Your task to perform on an android device: Show me recent news Image 0: 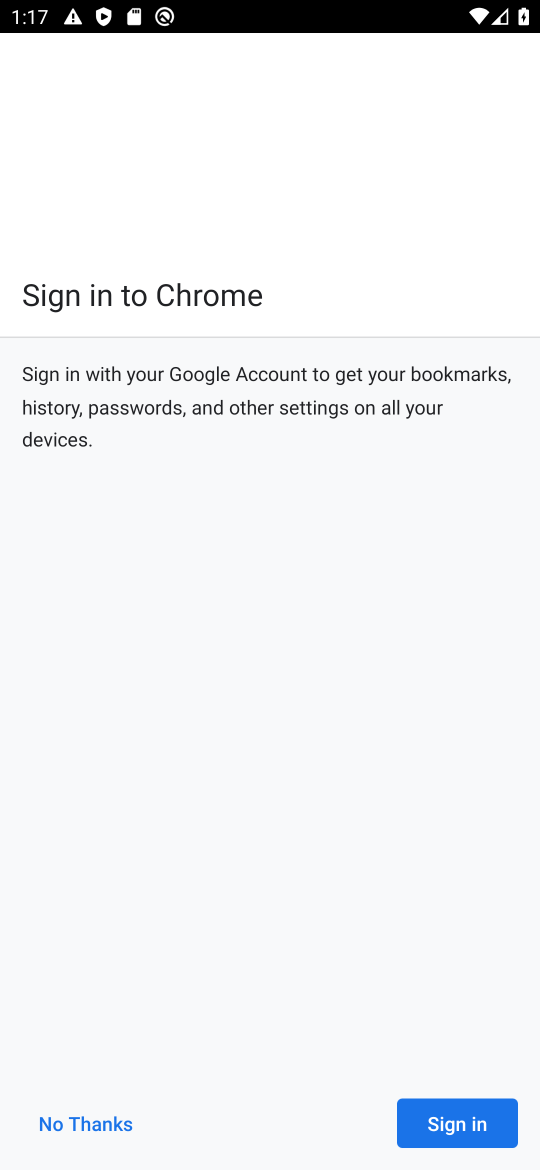
Step 0: press home button
Your task to perform on an android device: Show me recent news Image 1: 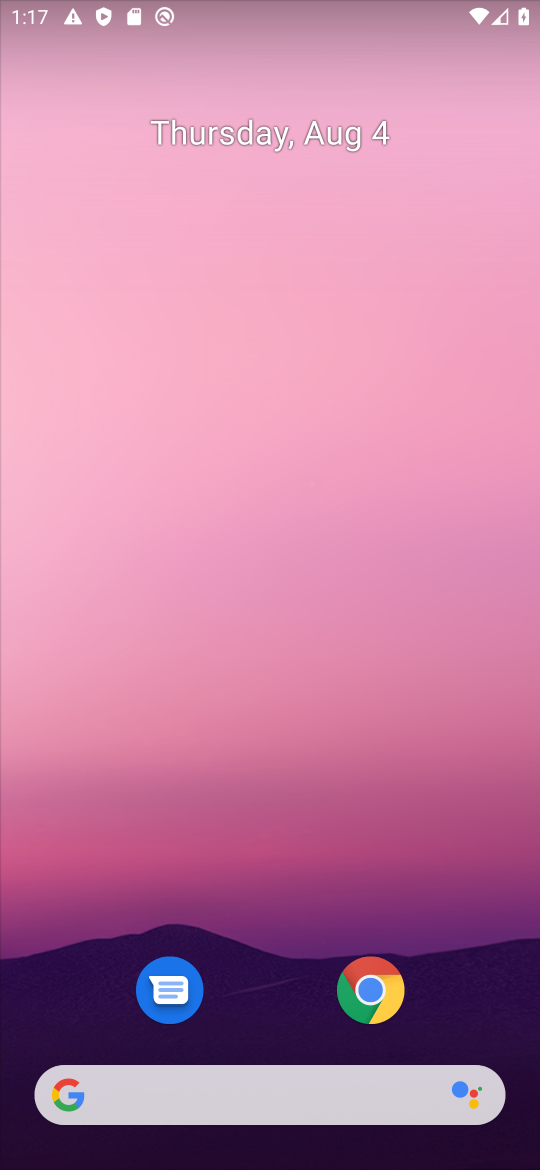
Step 1: click (261, 1098)
Your task to perform on an android device: Show me recent news Image 2: 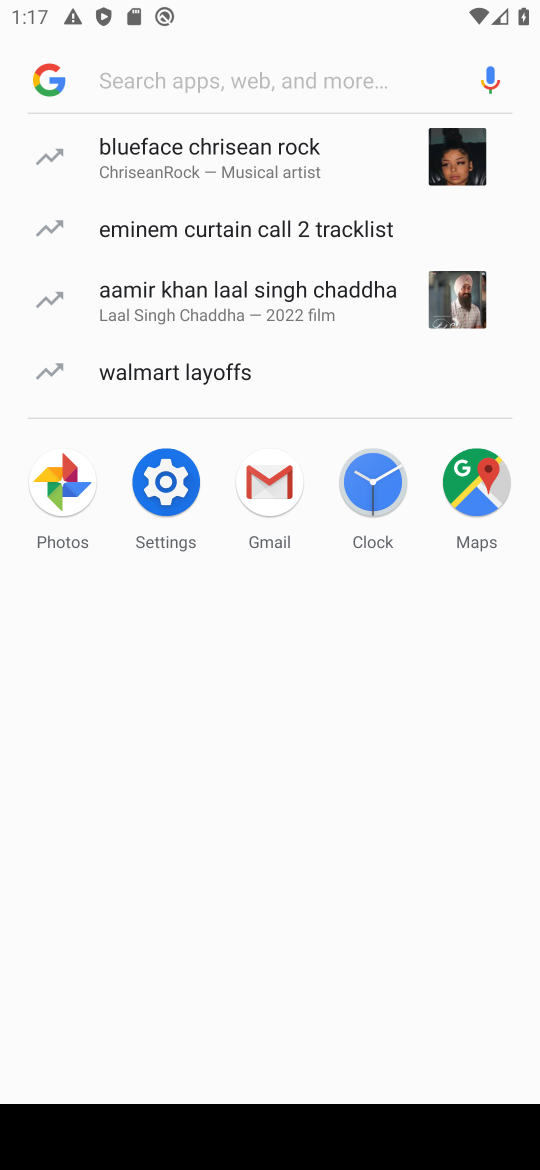
Step 2: click (288, 91)
Your task to perform on an android device: Show me recent news Image 3: 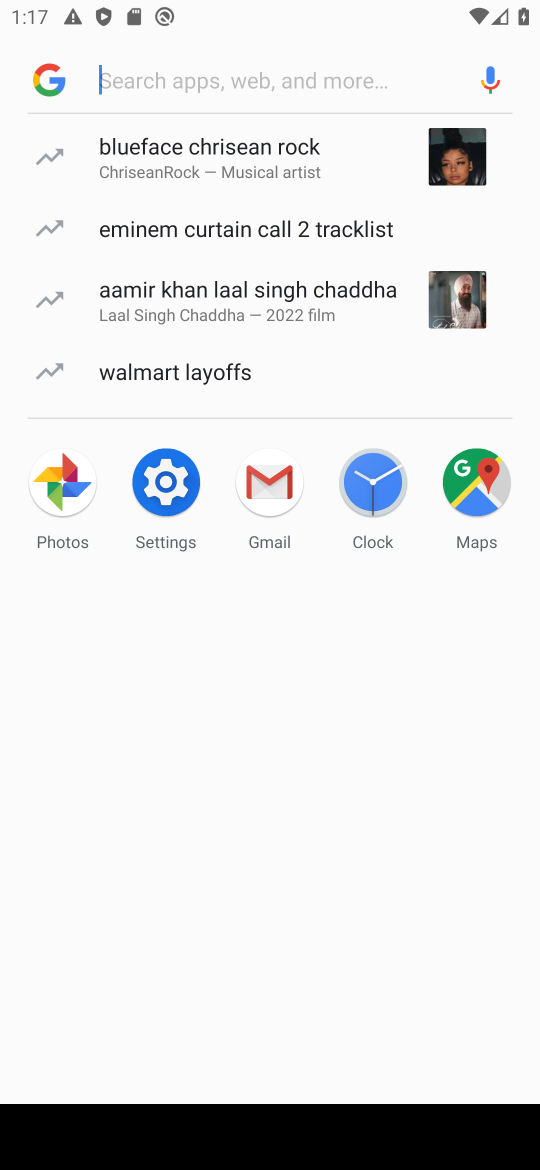
Step 3: type "resent news"
Your task to perform on an android device: Show me recent news Image 4: 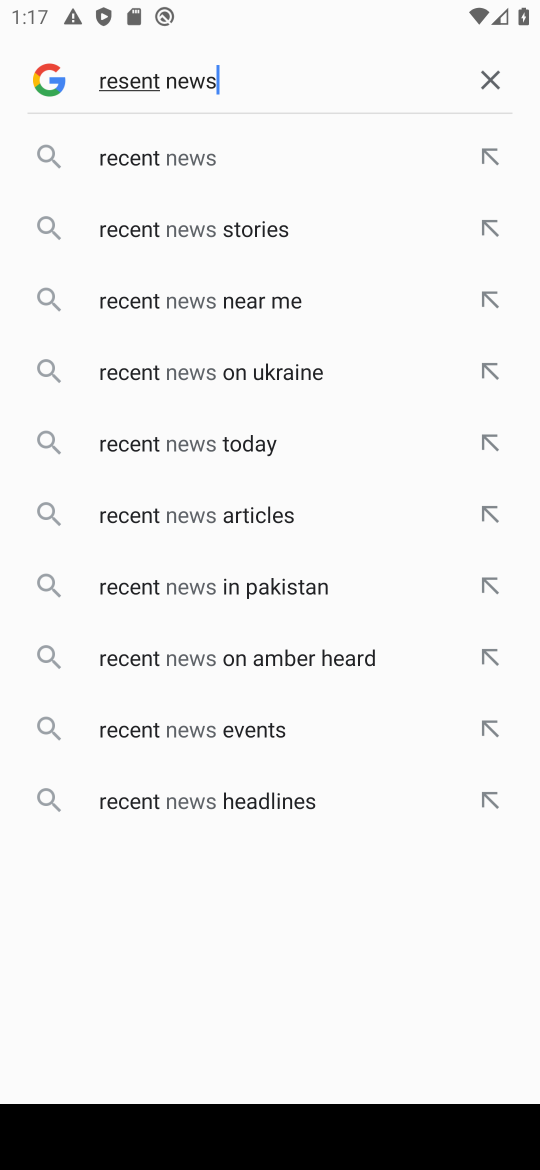
Step 4: click (258, 137)
Your task to perform on an android device: Show me recent news Image 5: 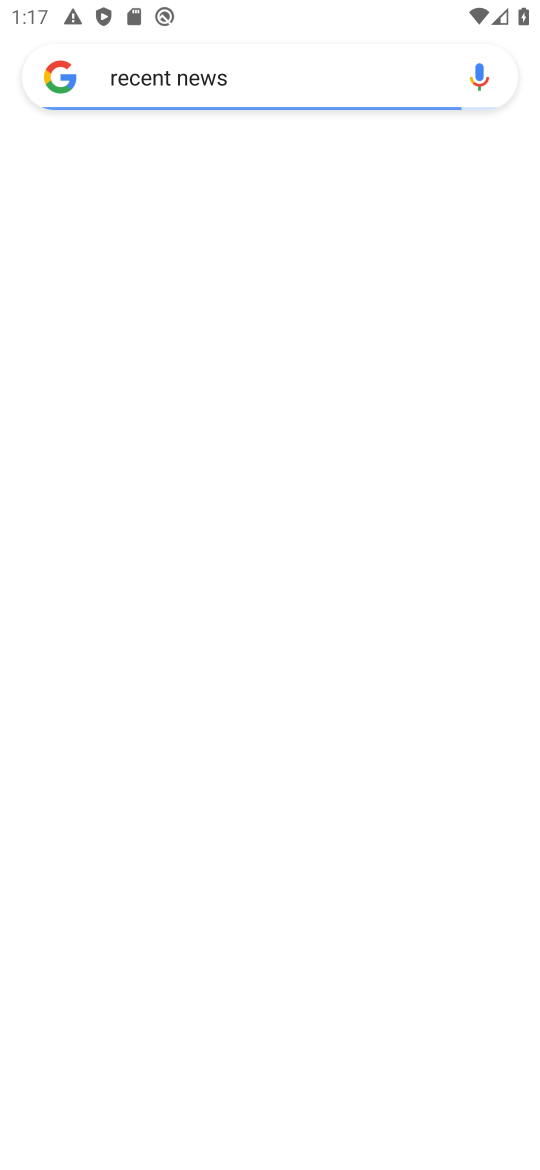
Step 5: task complete